Your task to perform on an android device: When is my next appointment? Image 0: 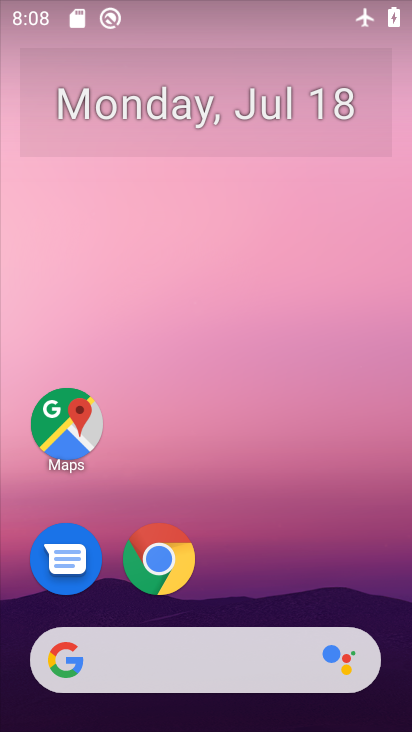
Step 0: drag from (358, 573) to (370, 180)
Your task to perform on an android device: When is my next appointment? Image 1: 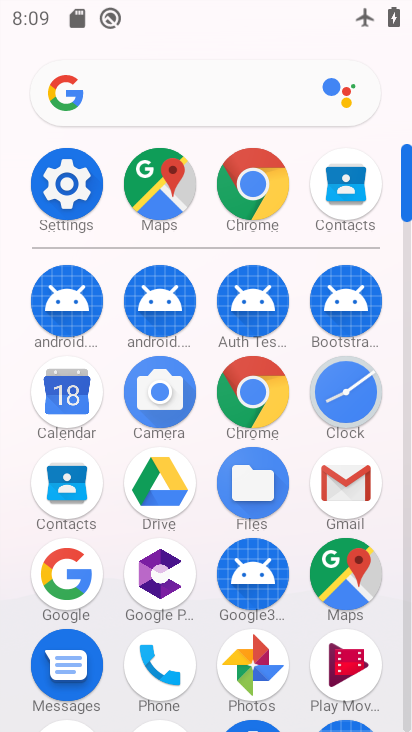
Step 1: click (66, 416)
Your task to perform on an android device: When is my next appointment? Image 2: 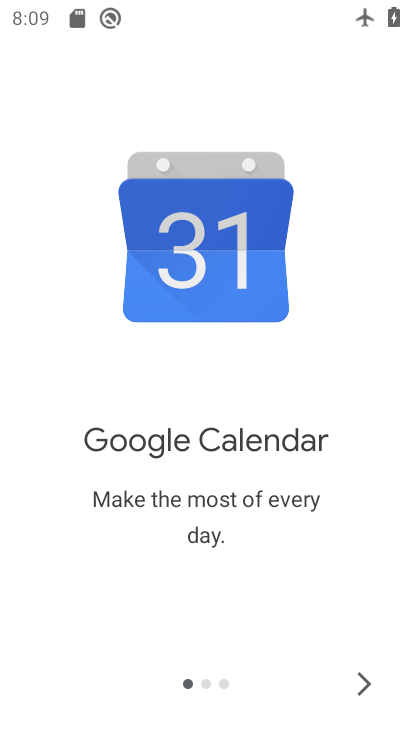
Step 2: click (348, 683)
Your task to perform on an android device: When is my next appointment? Image 3: 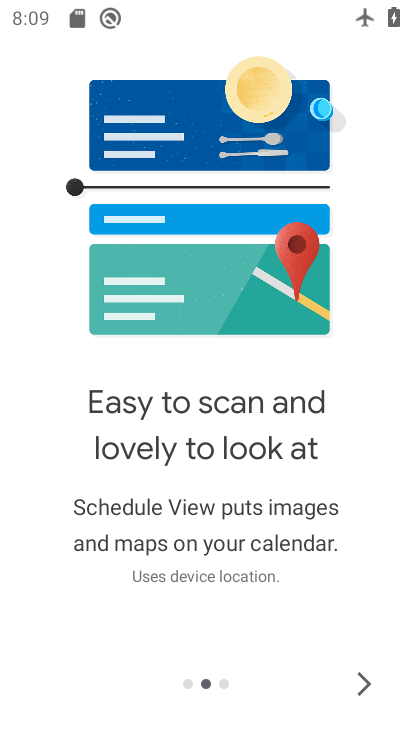
Step 3: click (362, 682)
Your task to perform on an android device: When is my next appointment? Image 4: 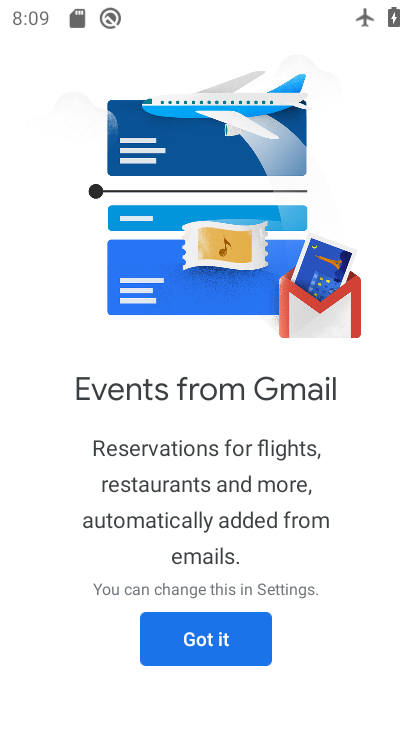
Step 4: click (249, 636)
Your task to perform on an android device: When is my next appointment? Image 5: 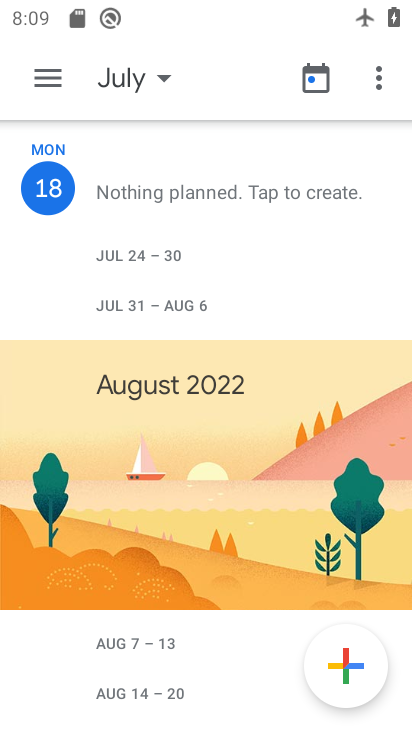
Step 5: task complete